Your task to perform on an android device: turn on the 12-hour format for clock Image 0: 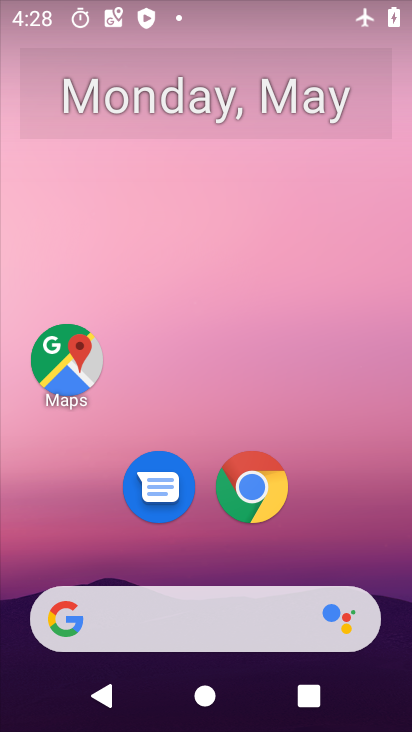
Step 0: drag from (183, 502) to (232, 216)
Your task to perform on an android device: turn on the 12-hour format for clock Image 1: 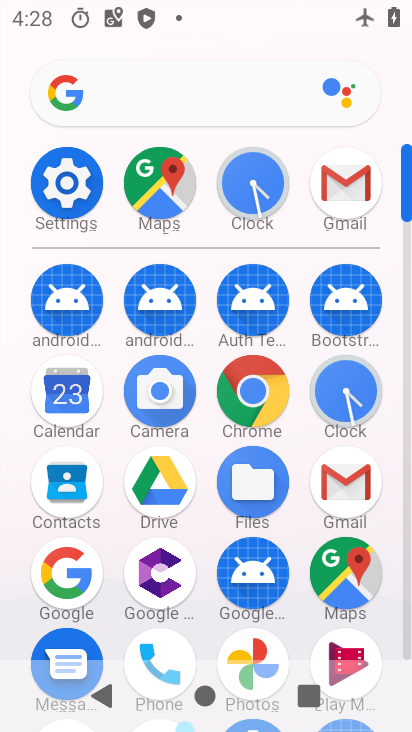
Step 1: click (334, 393)
Your task to perform on an android device: turn on the 12-hour format for clock Image 2: 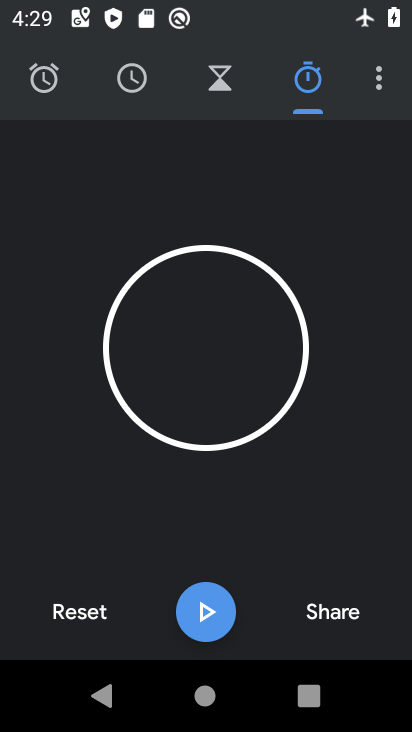
Step 2: click (384, 79)
Your task to perform on an android device: turn on the 12-hour format for clock Image 3: 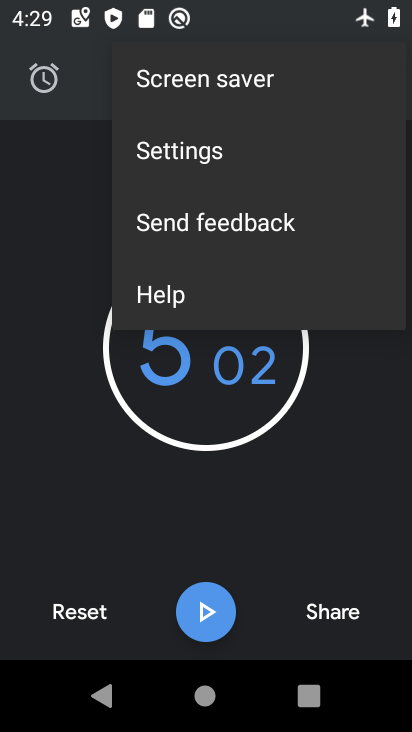
Step 3: click (233, 162)
Your task to perform on an android device: turn on the 12-hour format for clock Image 4: 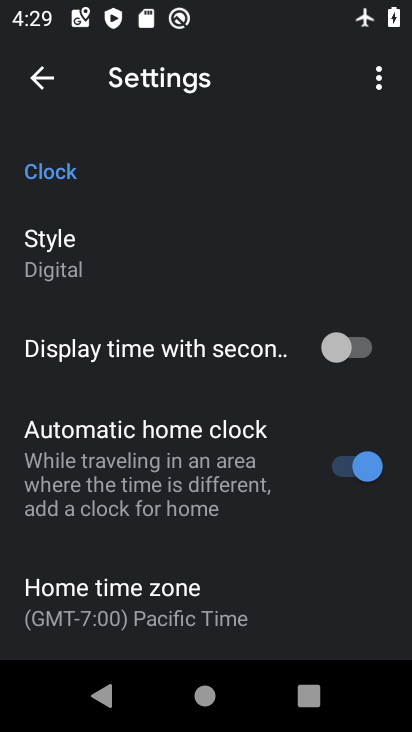
Step 4: drag from (175, 607) to (181, 220)
Your task to perform on an android device: turn on the 12-hour format for clock Image 5: 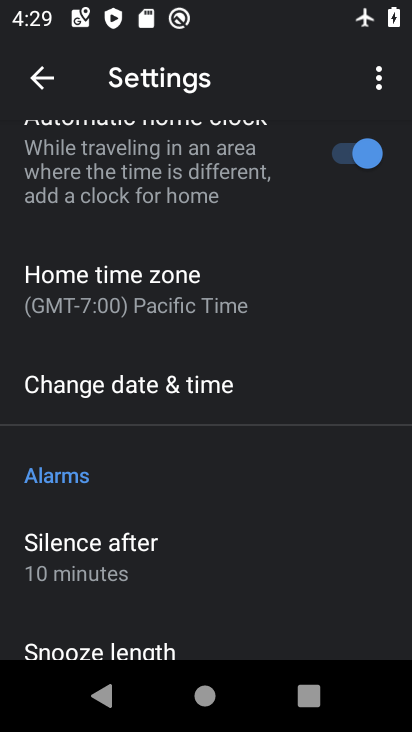
Step 5: click (129, 395)
Your task to perform on an android device: turn on the 12-hour format for clock Image 6: 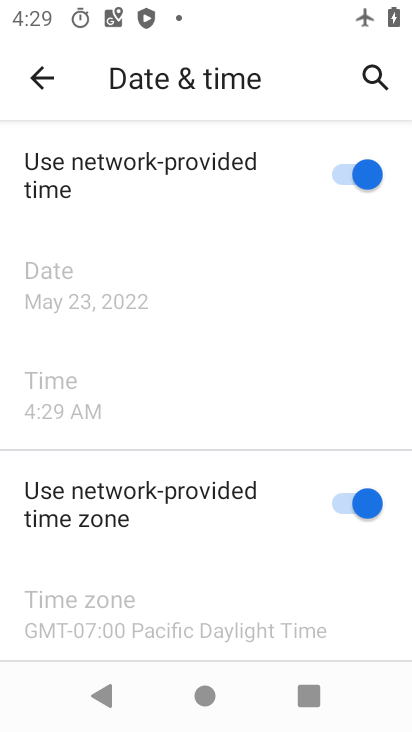
Step 6: task complete